Your task to perform on an android device: Is it going to rain today? Image 0: 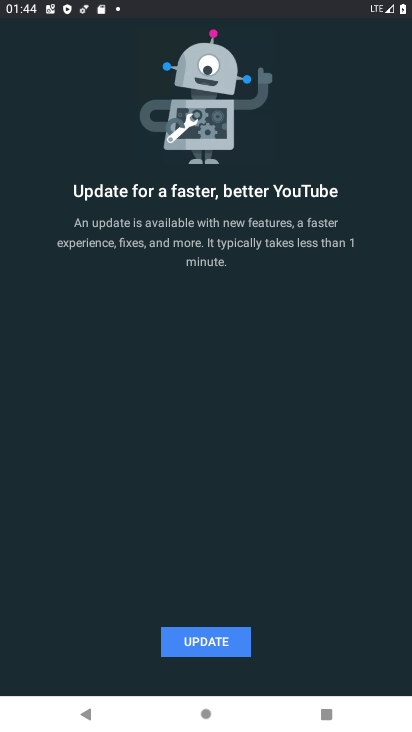
Step 0: press back button
Your task to perform on an android device: Is it going to rain today? Image 1: 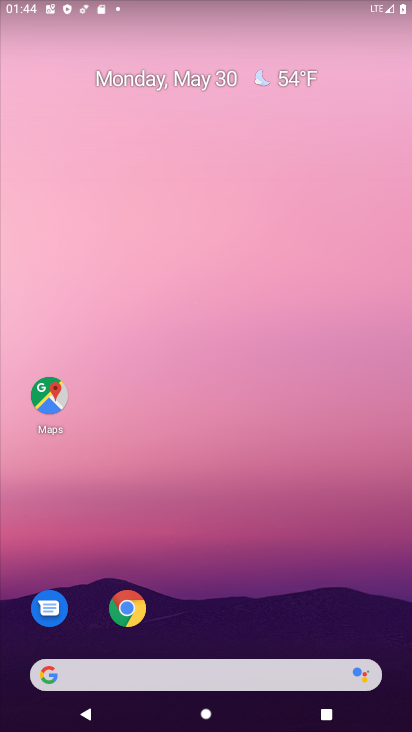
Step 1: click (134, 601)
Your task to perform on an android device: Is it going to rain today? Image 2: 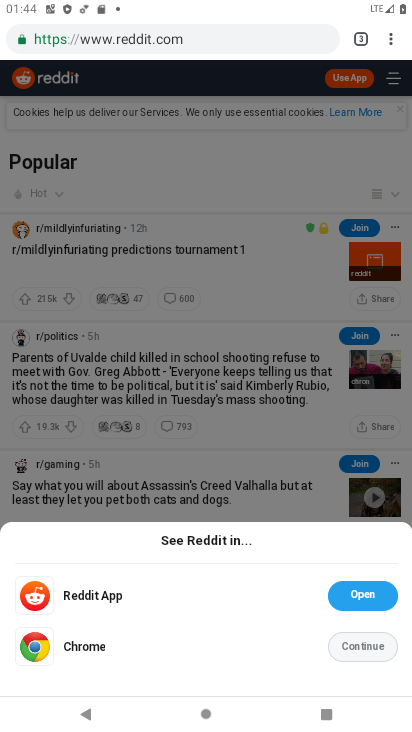
Step 2: click (392, 47)
Your task to perform on an android device: Is it going to rain today? Image 3: 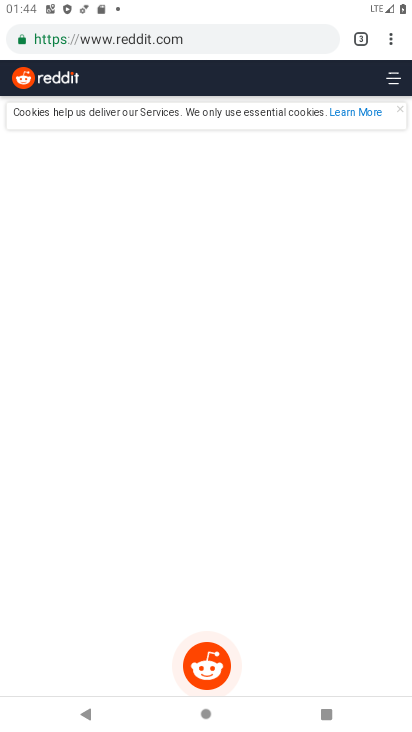
Step 3: click (394, 31)
Your task to perform on an android device: Is it going to rain today? Image 4: 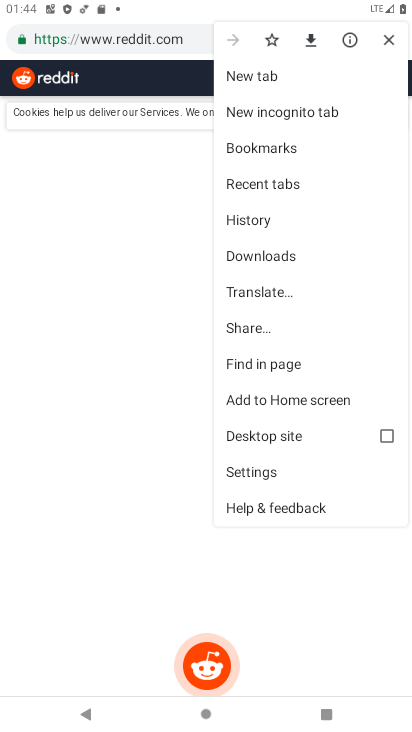
Step 4: click (261, 68)
Your task to perform on an android device: Is it going to rain today? Image 5: 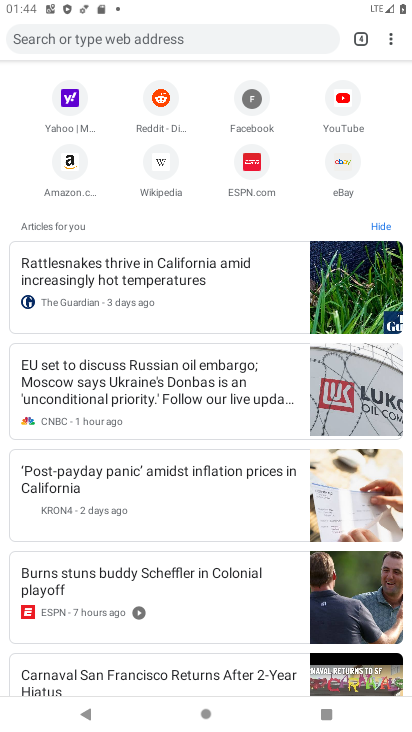
Step 5: click (148, 33)
Your task to perform on an android device: Is it going to rain today? Image 6: 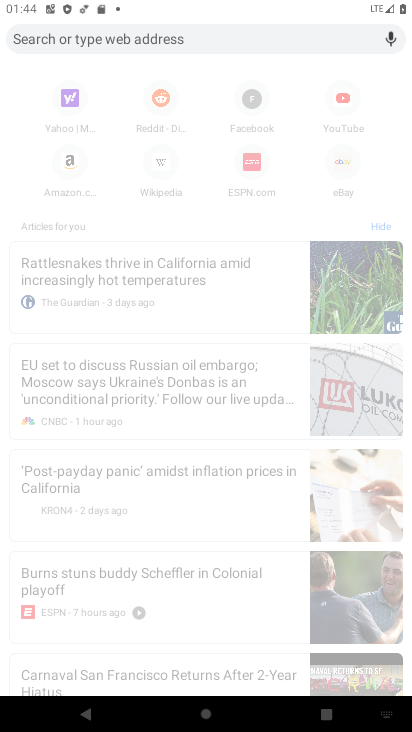
Step 6: type "Is it going to rain today?"
Your task to perform on an android device: Is it going to rain today? Image 7: 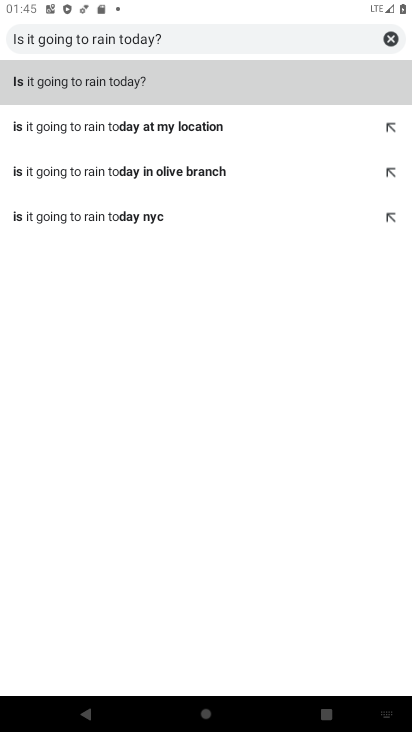
Step 7: click (231, 86)
Your task to perform on an android device: Is it going to rain today? Image 8: 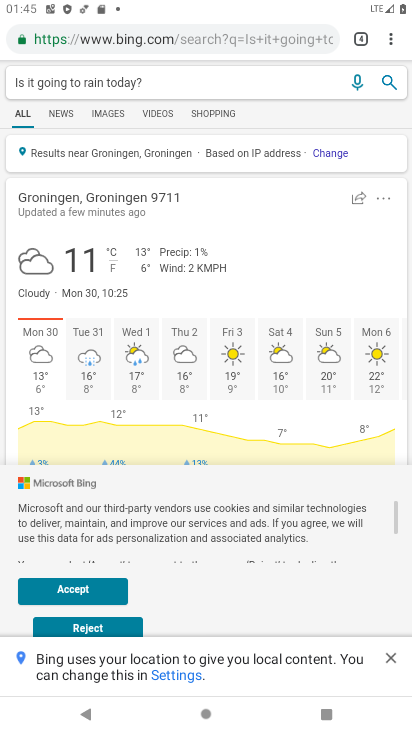
Step 8: task complete